Your task to perform on an android device: turn off notifications in google photos Image 0: 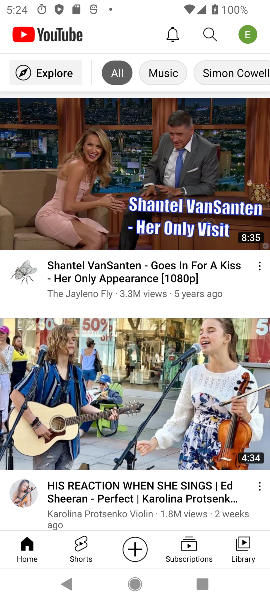
Step 0: press back button
Your task to perform on an android device: turn off notifications in google photos Image 1: 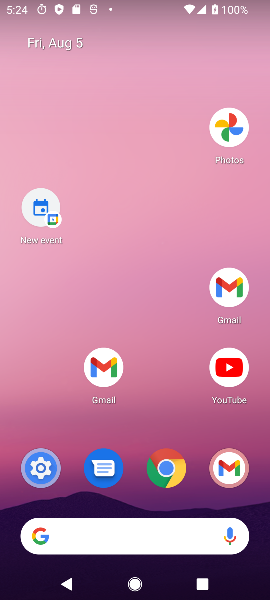
Step 1: drag from (157, 556) to (96, 125)
Your task to perform on an android device: turn off notifications in google photos Image 2: 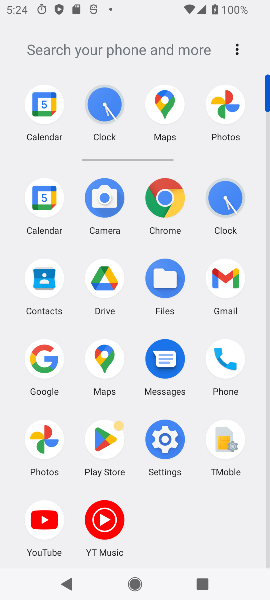
Step 2: click (45, 438)
Your task to perform on an android device: turn off notifications in google photos Image 3: 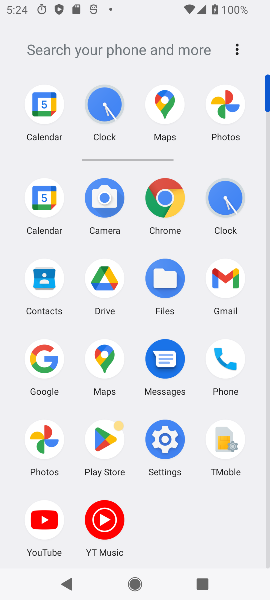
Step 3: click (45, 438)
Your task to perform on an android device: turn off notifications in google photos Image 4: 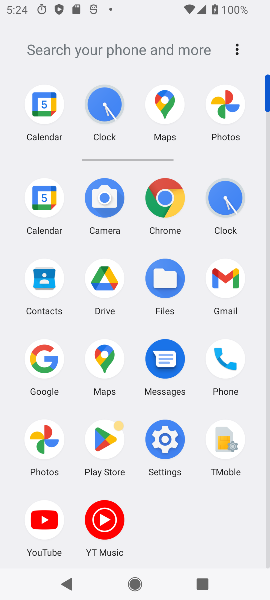
Step 4: click (45, 438)
Your task to perform on an android device: turn off notifications in google photos Image 5: 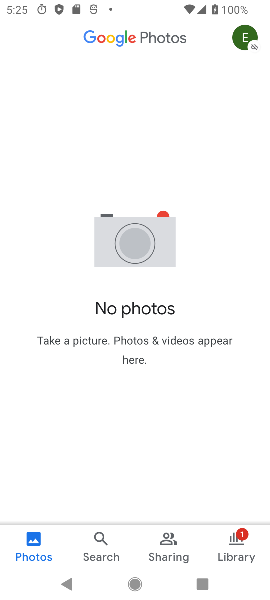
Step 5: drag from (245, 39) to (215, 397)
Your task to perform on an android device: turn off notifications in google photos Image 6: 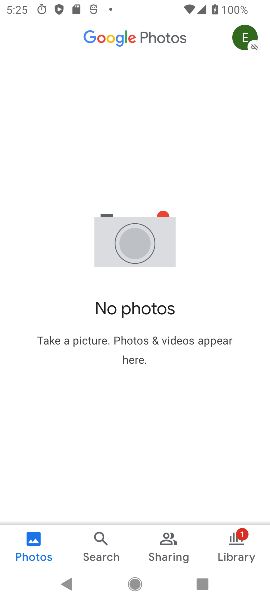
Step 6: click (248, 46)
Your task to perform on an android device: turn off notifications in google photos Image 7: 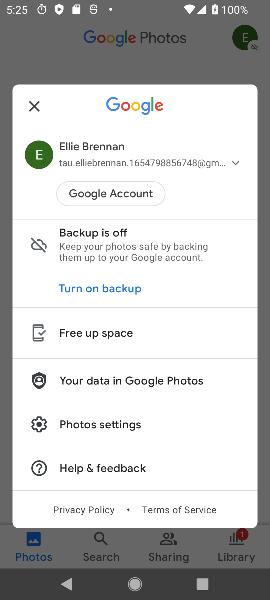
Step 7: click (91, 421)
Your task to perform on an android device: turn off notifications in google photos Image 8: 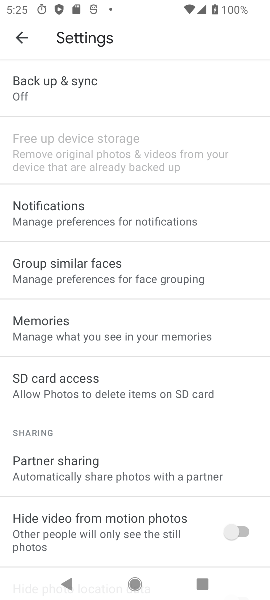
Step 8: click (69, 211)
Your task to perform on an android device: turn off notifications in google photos Image 9: 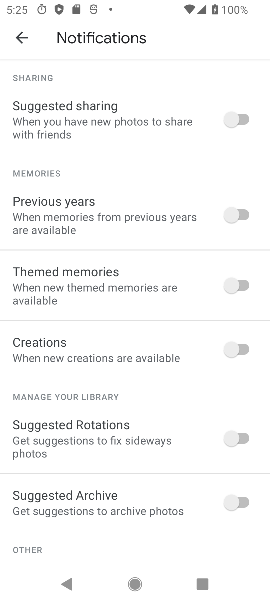
Step 9: task complete